Your task to perform on an android device: make emails show in primary in the gmail app Image 0: 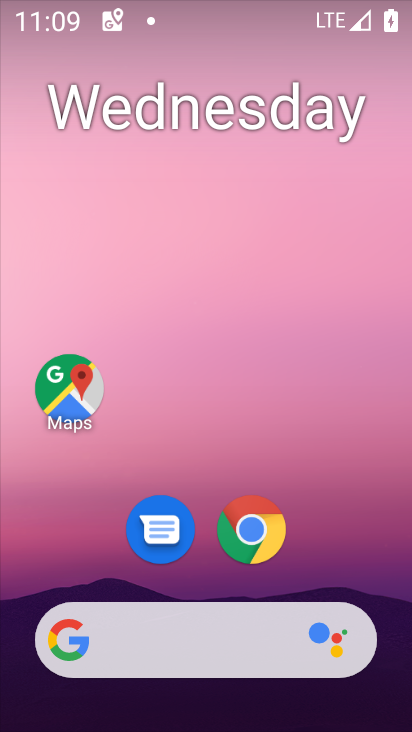
Step 0: drag from (403, 617) to (306, 48)
Your task to perform on an android device: make emails show in primary in the gmail app Image 1: 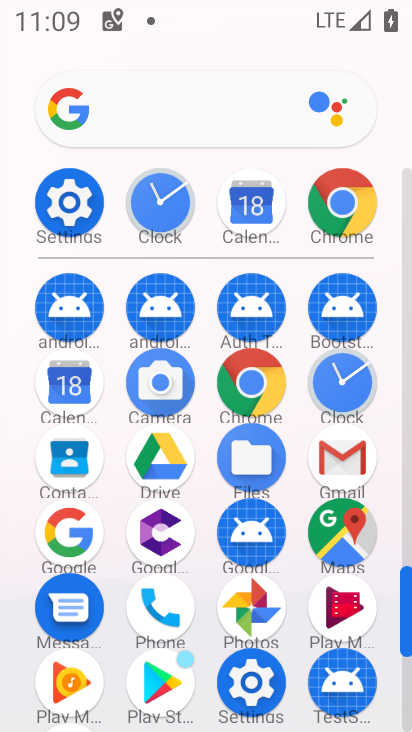
Step 1: click (406, 723)
Your task to perform on an android device: make emails show in primary in the gmail app Image 2: 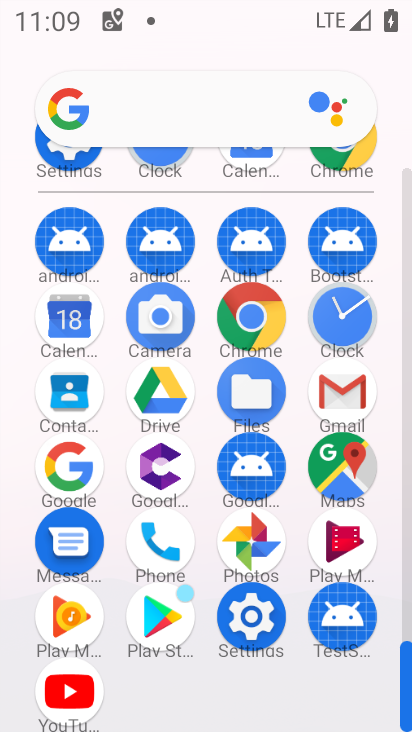
Step 2: click (338, 389)
Your task to perform on an android device: make emails show in primary in the gmail app Image 3: 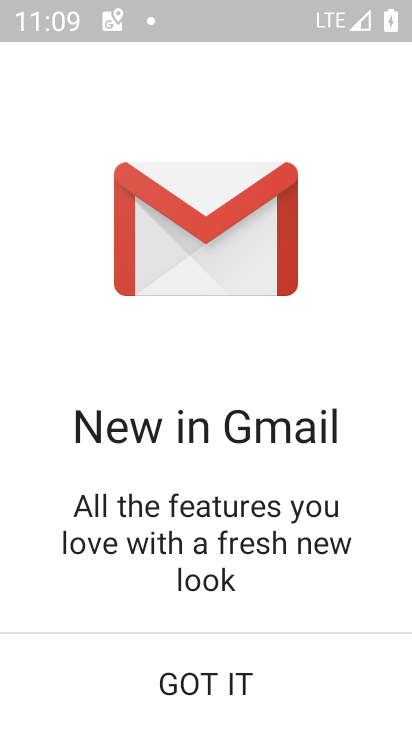
Step 3: click (188, 671)
Your task to perform on an android device: make emails show in primary in the gmail app Image 4: 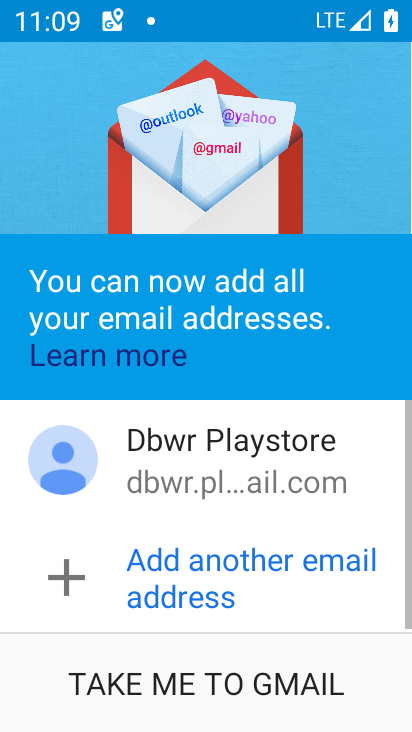
Step 4: click (188, 671)
Your task to perform on an android device: make emails show in primary in the gmail app Image 5: 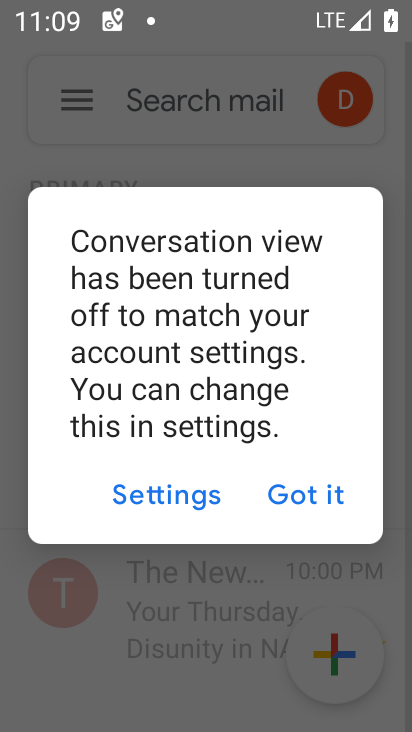
Step 5: click (308, 497)
Your task to perform on an android device: make emails show in primary in the gmail app Image 6: 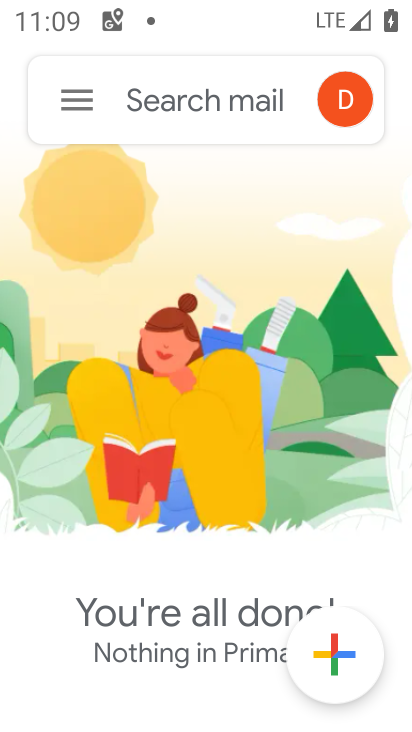
Step 6: click (71, 101)
Your task to perform on an android device: make emails show in primary in the gmail app Image 7: 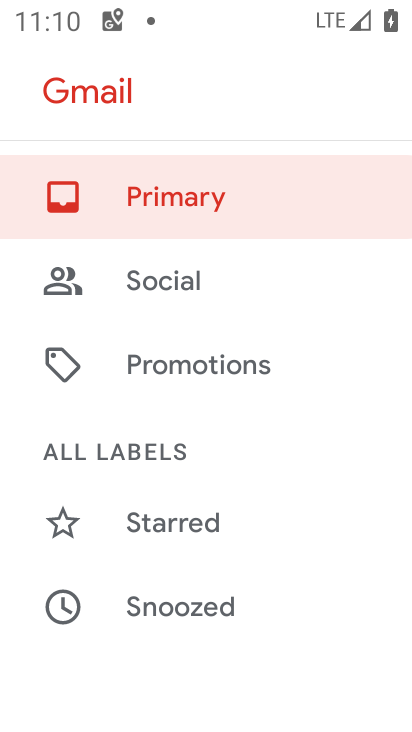
Step 7: click (181, 195)
Your task to perform on an android device: make emails show in primary in the gmail app Image 8: 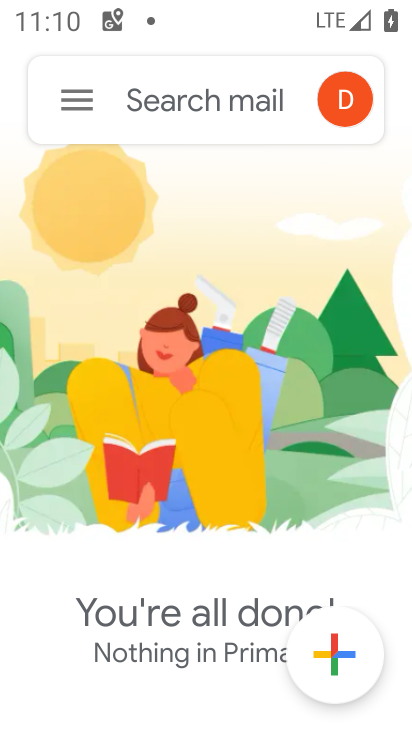
Step 8: task complete